Your task to perform on an android device: Show me popular games on the Play Store Image 0: 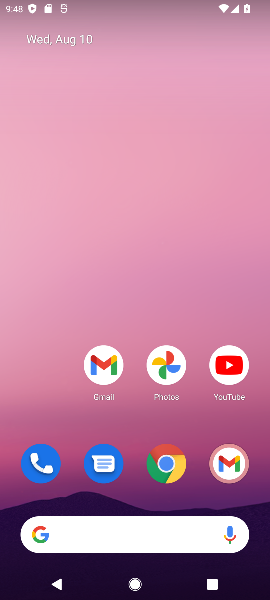
Step 0: drag from (15, 580) to (171, 199)
Your task to perform on an android device: Show me popular games on the Play Store Image 1: 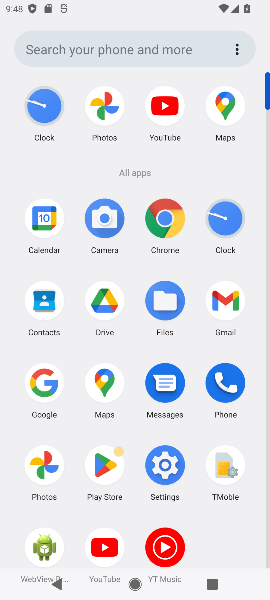
Step 1: click (102, 454)
Your task to perform on an android device: Show me popular games on the Play Store Image 2: 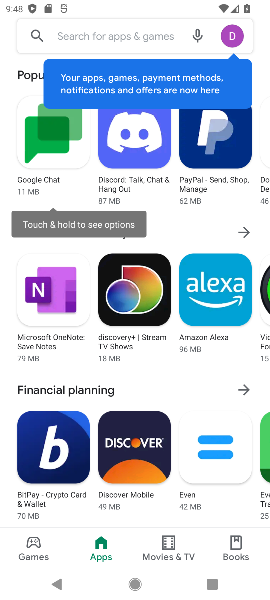
Step 2: click (108, 42)
Your task to perform on an android device: Show me popular games on the Play Store Image 3: 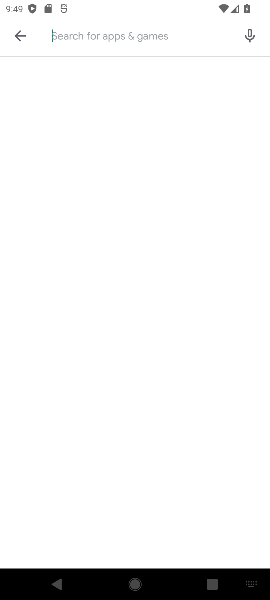
Step 3: type "popular games"
Your task to perform on an android device: Show me popular games on the Play Store Image 4: 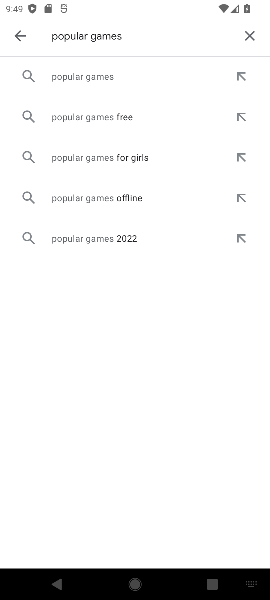
Step 4: click (92, 71)
Your task to perform on an android device: Show me popular games on the Play Store Image 5: 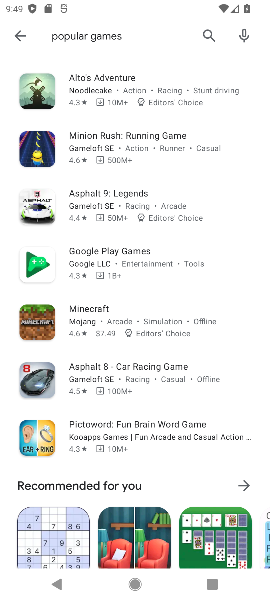
Step 5: task complete